Your task to perform on an android device: Is it going to rain today? Image 0: 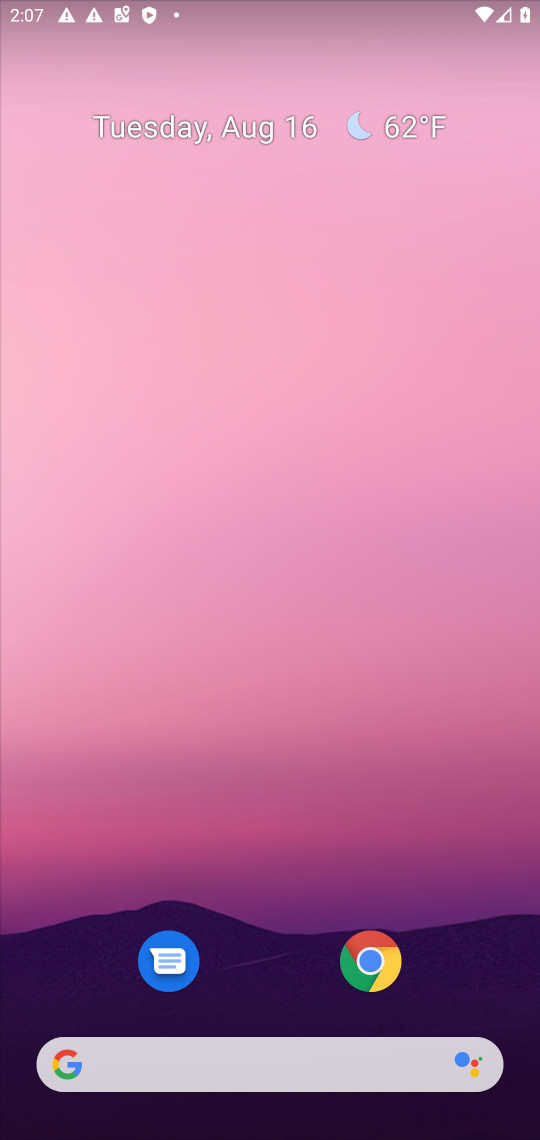
Step 0: drag from (477, 917) to (307, 65)
Your task to perform on an android device: Is it going to rain today? Image 1: 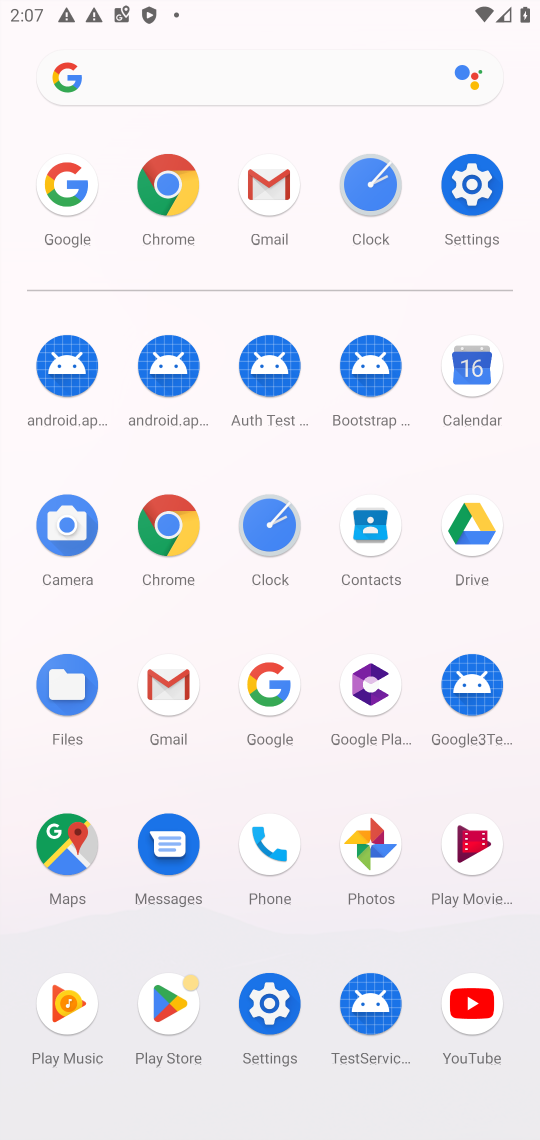
Step 1: click (255, 696)
Your task to perform on an android device: Is it going to rain today? Image 2: 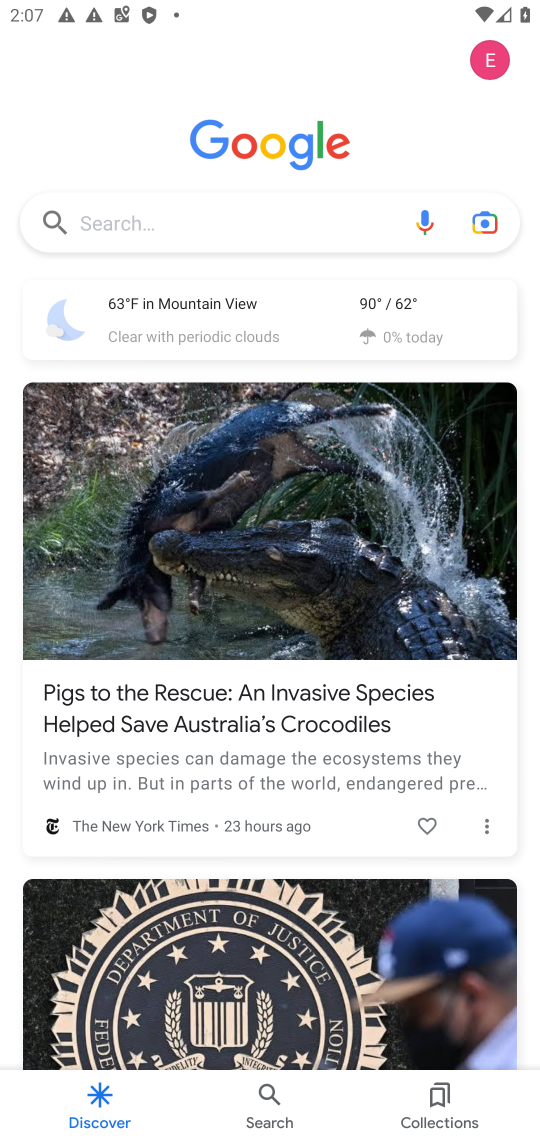
Step 2: click (138, 220)
Your task to perform on an android device: Is it going to rain today? Image 3: 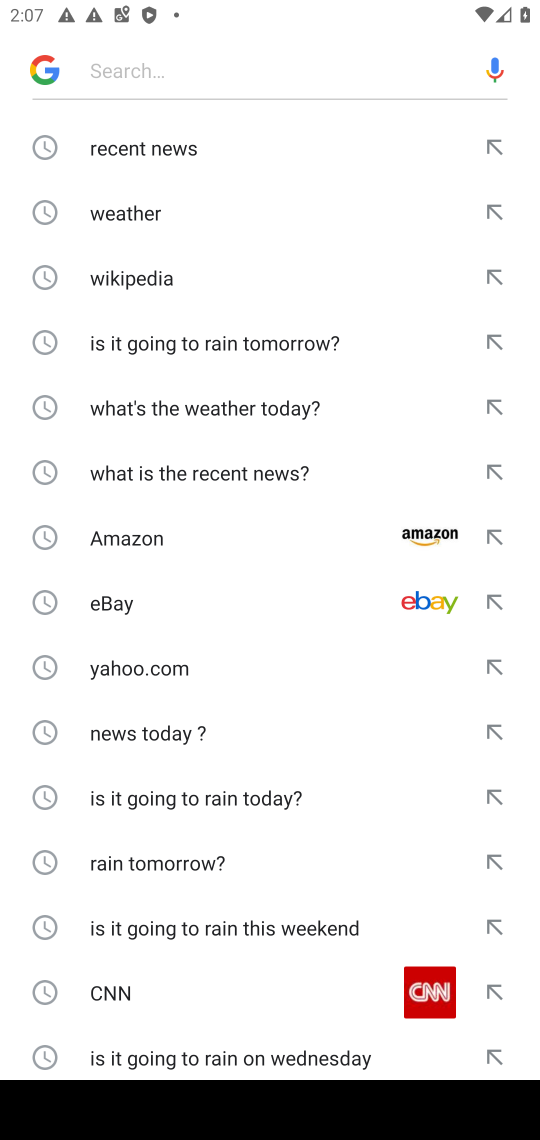
Step 3: click (225, 815)
Your task to perform on an android device: Is it going to rain today? Image 4: 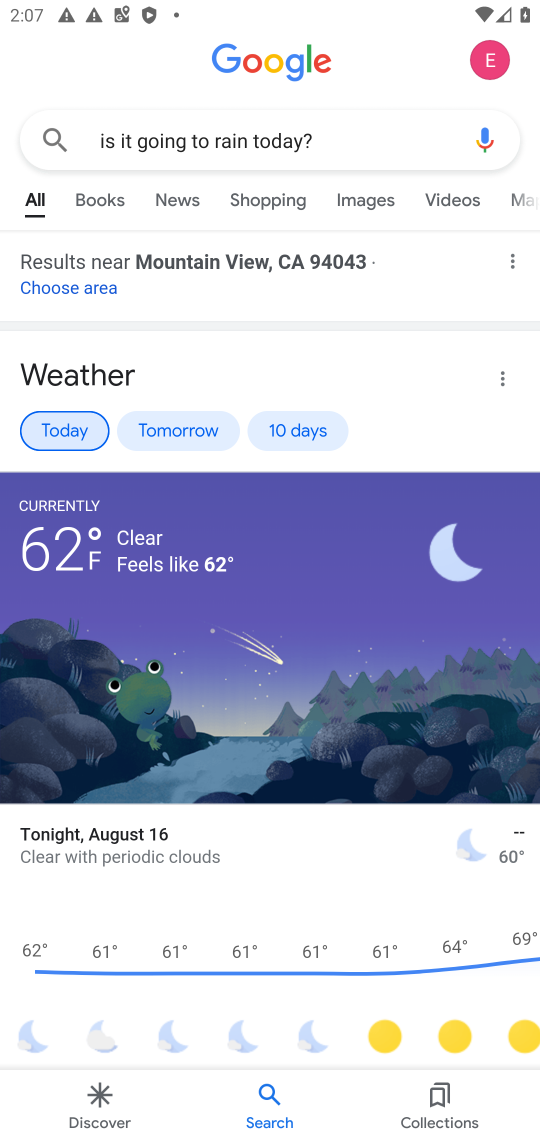
Step 4: task complete